Your task to perform on an android device: toggle improve location accuracy Image 0: 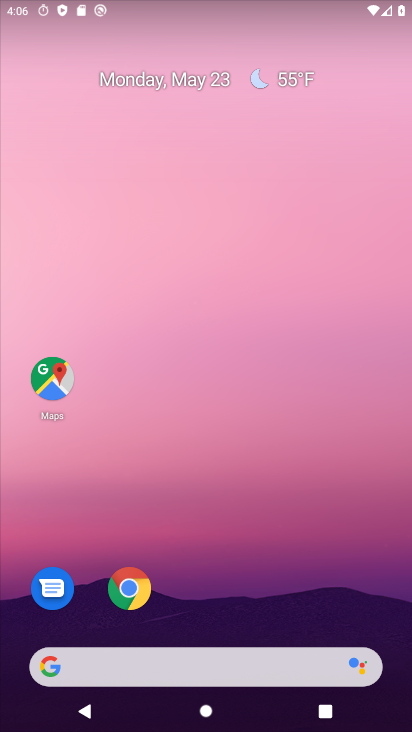
Step 0: drag from (250, 393) to (275, 85)
Your task to perform on an android device: toggle improve location accuracy Image 1: 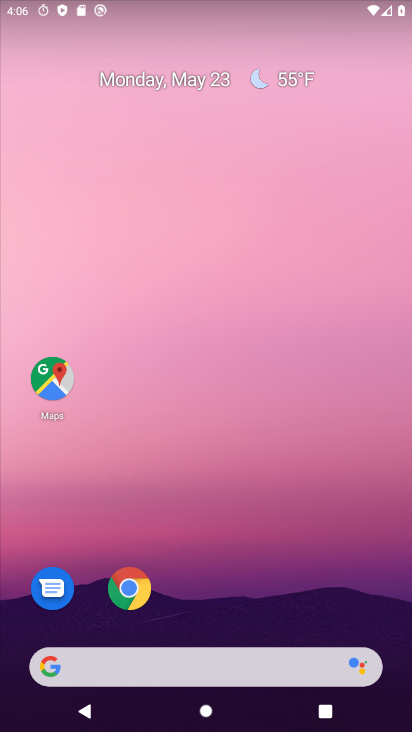
Step 1: drag from (221, 612) to (253, 117)
Your task to perform on an android device: toggle improve location accuracy Image 2: 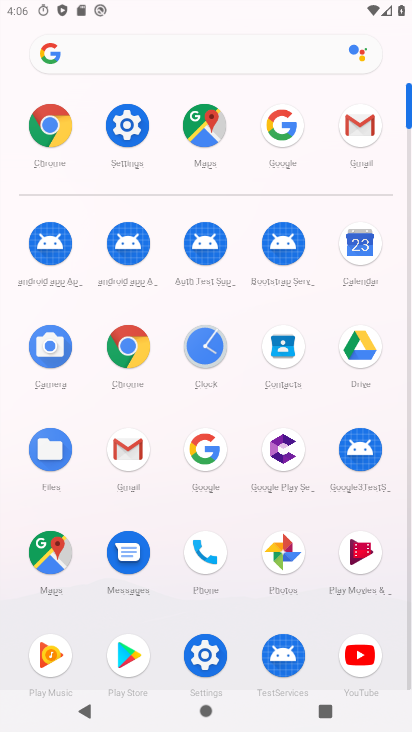
Step 2: click (127, 116)
Your task to perform on an android device: toggle improve location accuracy Image 3: 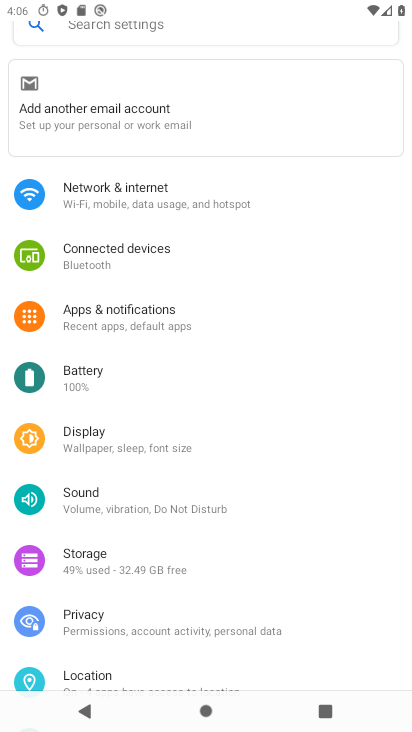
Step 3: click (106, 668)
Your task to perform on an android device: toggle improve location accuracy Image 4: 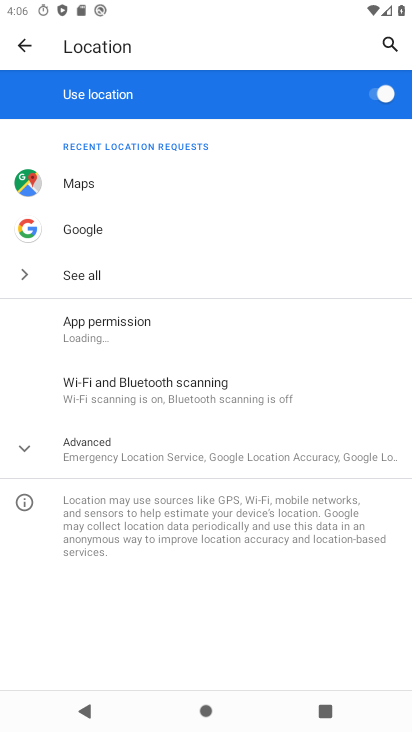
Step 4: drag from (282, 578) to (297, 299)
Your task to perform on an android device: toggle improve location accuracy Image 5: 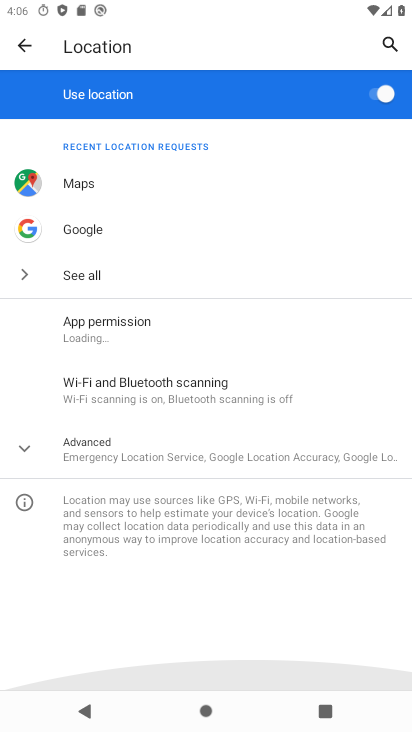
Step 5: click (105, 442)
Your task to perform on an android device: toggle improve location accuracy Image 6: 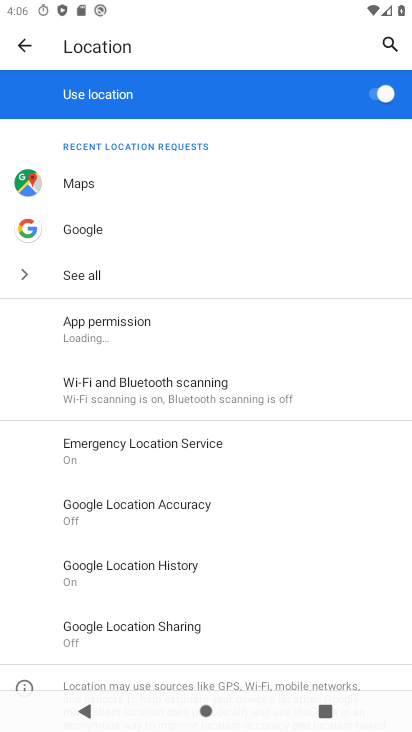
Step 6: click (169, 511)
Your task to perform on an android device: toggle improve location accuracy Image 7: 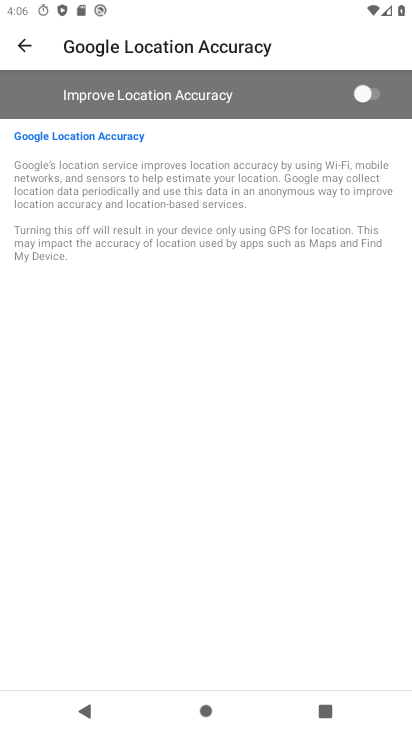
Step 7: click (371, 100)
Your task to perform on an android device: toggle improve location accuracy Image 8: 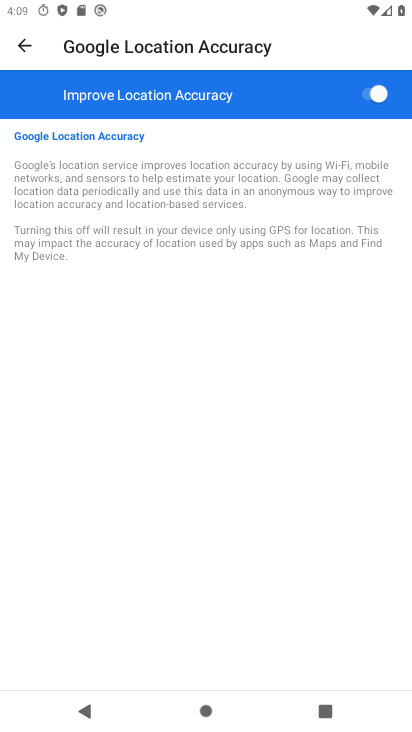
Step 8: task complete